Your task to perform on an android device: open wifi settings Image 0: 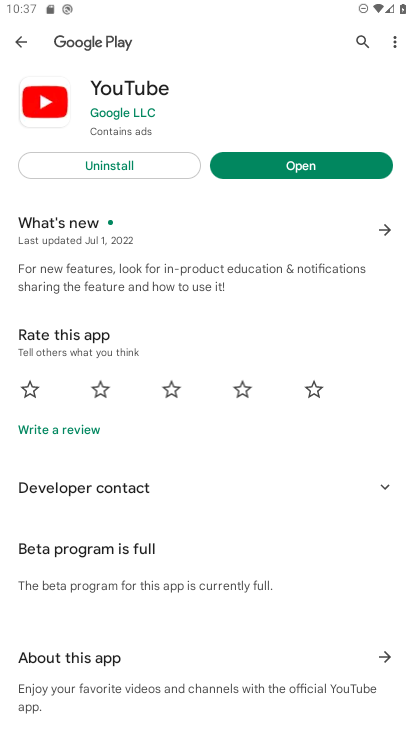
Step 0: press home button
Your task to perform on an android device: open wifi settings Image 1: 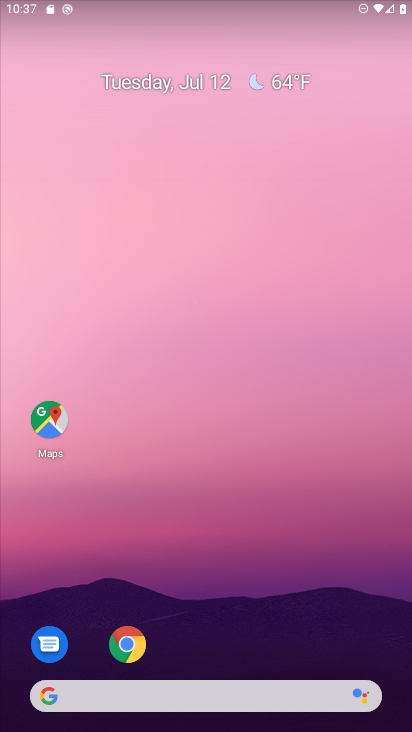
Step 1: drag from (239, 666) to (261, 185)
Your task to perform on an android device: open wifi settings Image 2: 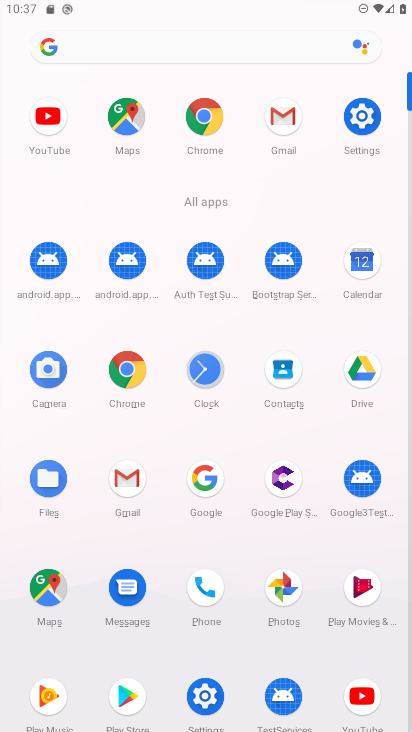
Step 2: click (341, 143)
Your task to perform on an android device: open wifi settings Image 3: 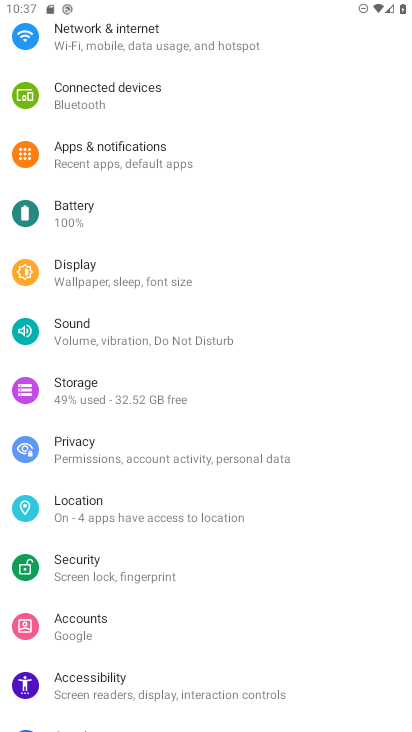
Step 3: click (216, 63)
Your task to perform on an android device: open wifi settings Image 4: 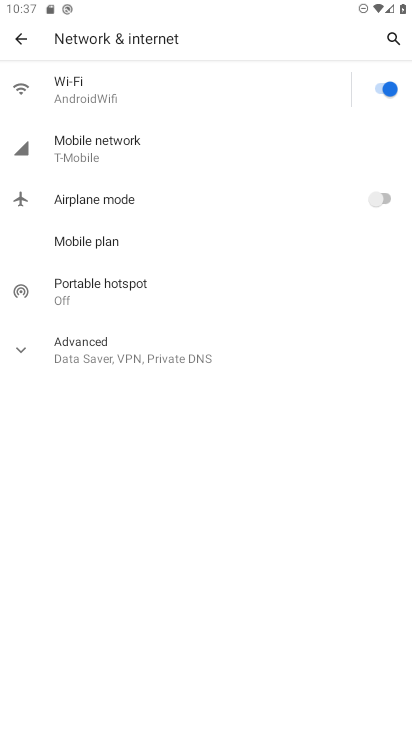
Step 4: click (356, 96)
Your task to perform on an android device: open wifi settings Image 5: 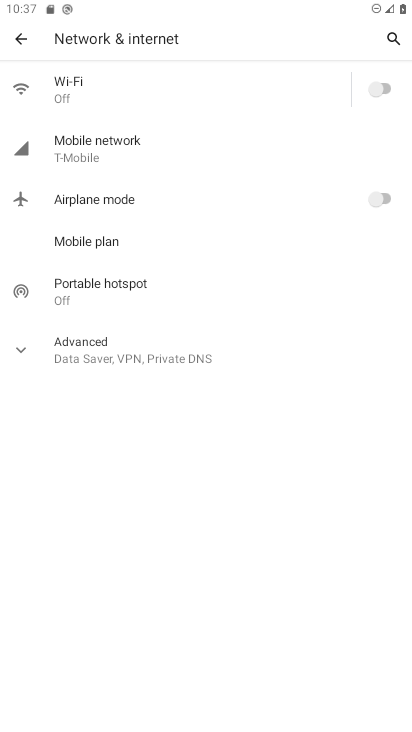
Step 5: click (356, 96)
Your task to perform on an android device: open wifi settings Image 6: 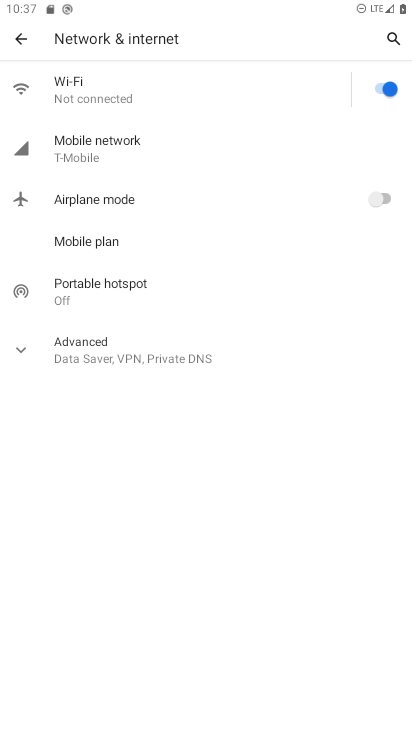
Step 6: click (238, 95)
Your task to perform on an android device: open wifi settings Image 7: 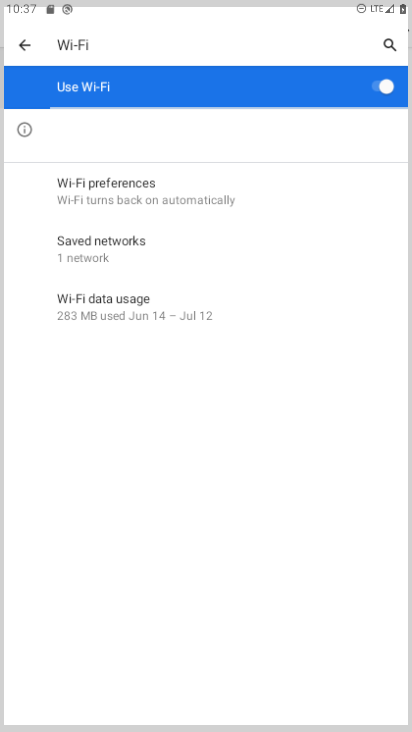
Step 7: task complete